Your task to perform on an android device: add a contact in the contacts app Image 0: 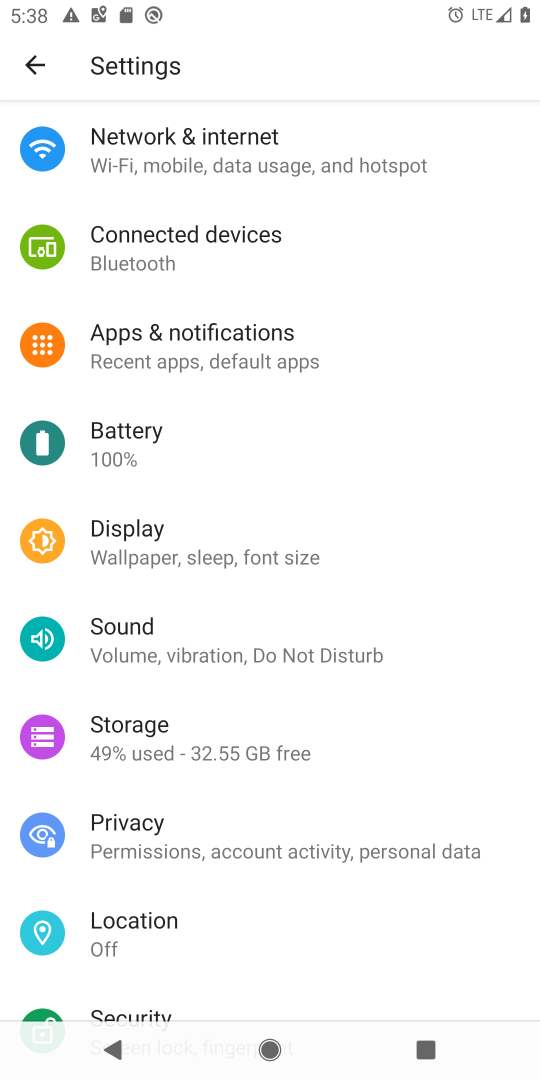
Step 0: press back button
Your task to perform on an android device: add a contact in the contacts app Image 1: 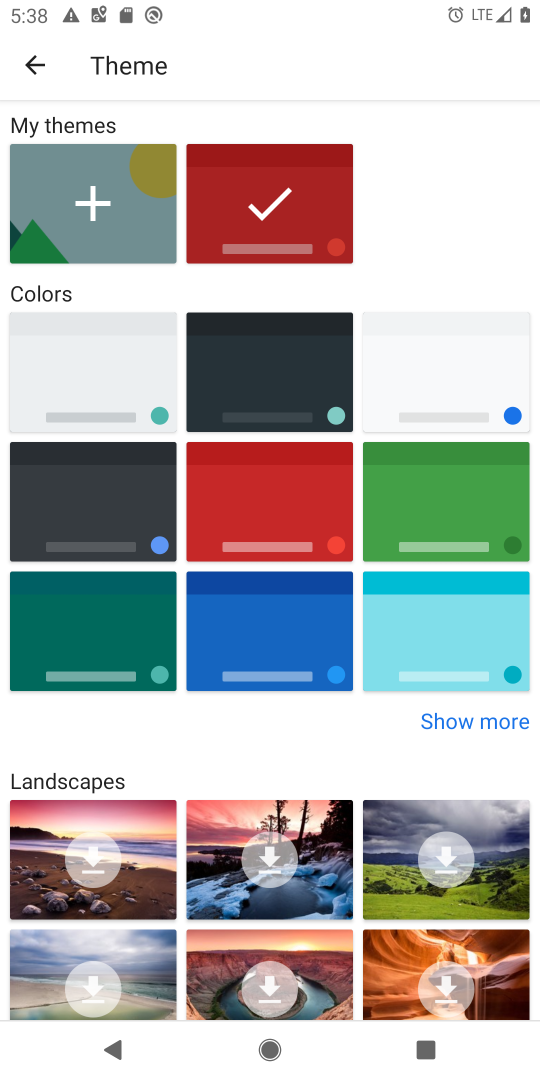
Step 1: press back button
Your task to perform on an android device: add a contact in the contacts app Image 2: 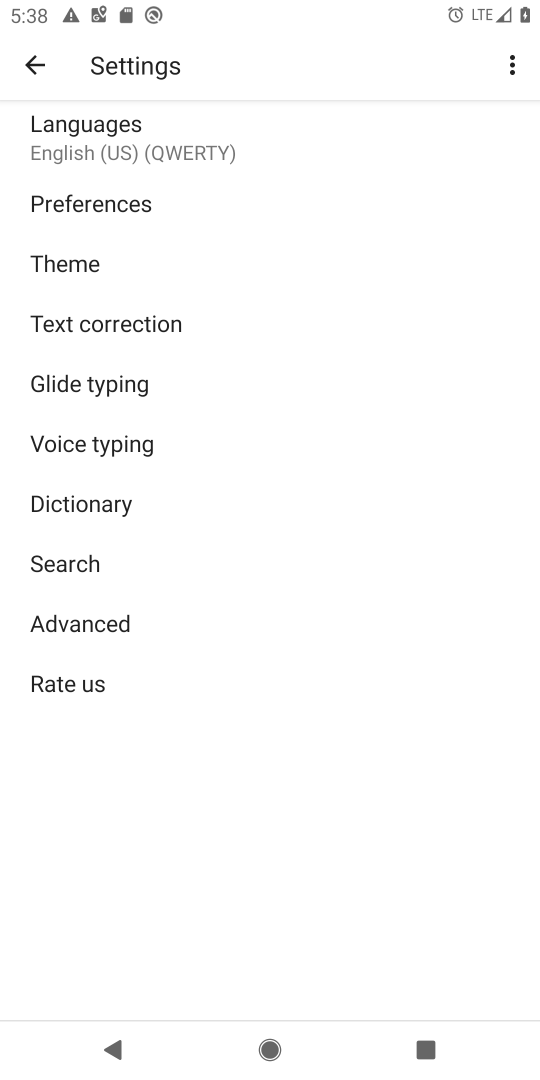
Step 2: press back button
Your task to perform on an android device: add a contact in the contacts app Image 3: 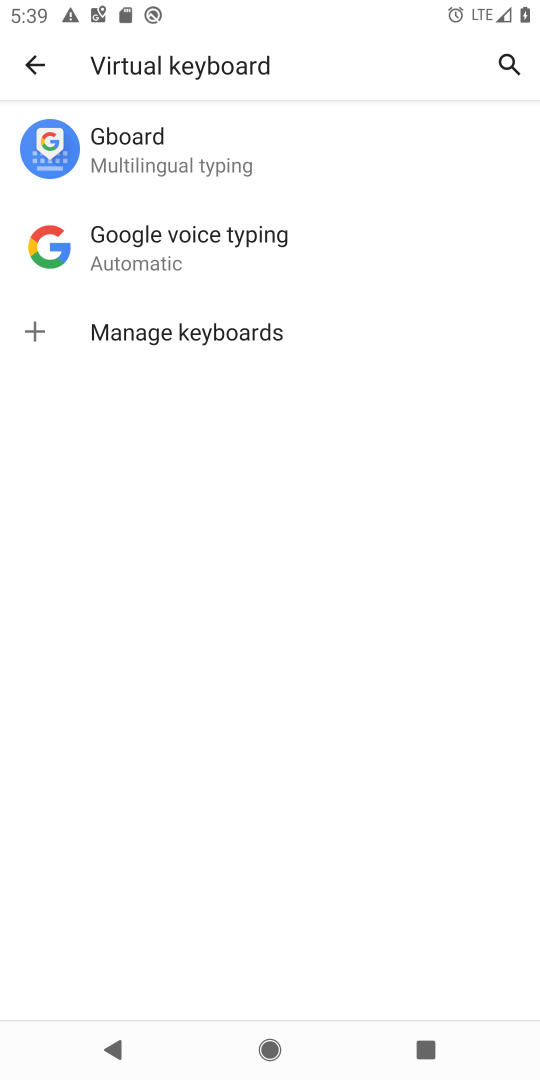
Step 3: press back button
Your task to perform on an android device: add a contact in the contacts app Image 4: 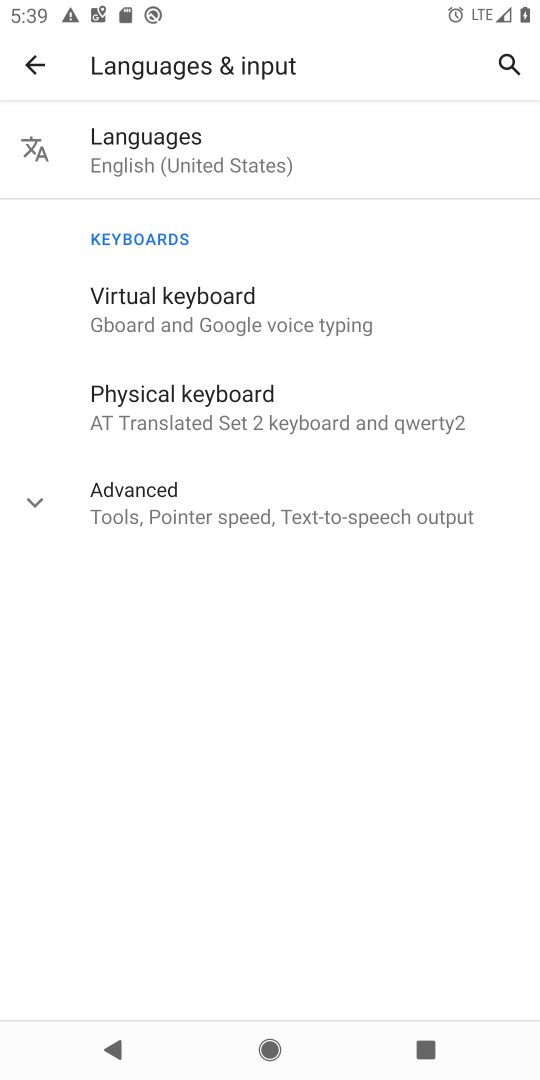
Step 4: press back button
Your task to perform on an android device: add a contact in the contacts app Image 5: 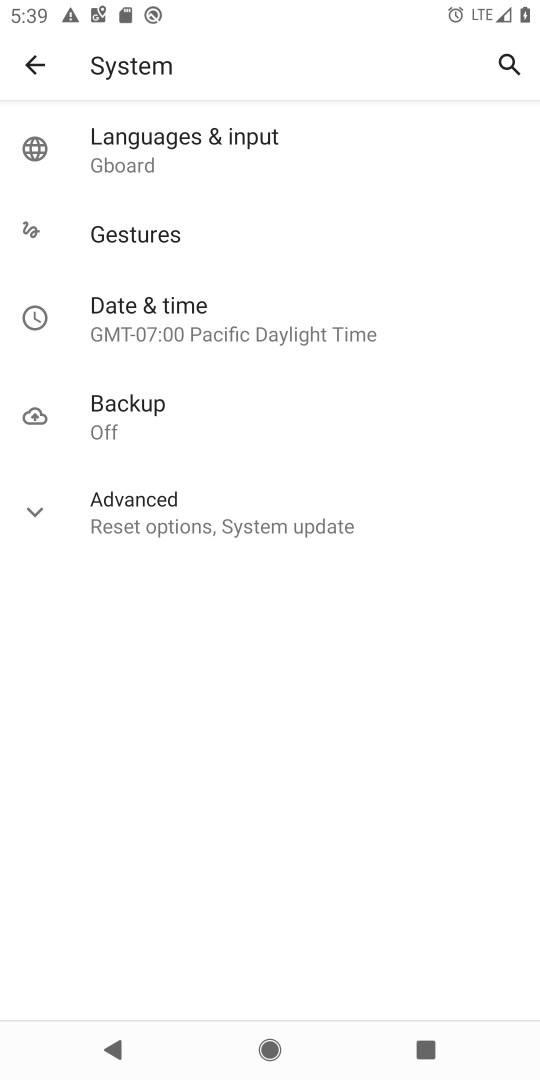
Step 5: press back button
Your task to perform on an android device: add a contact in the contacts app Image 6: 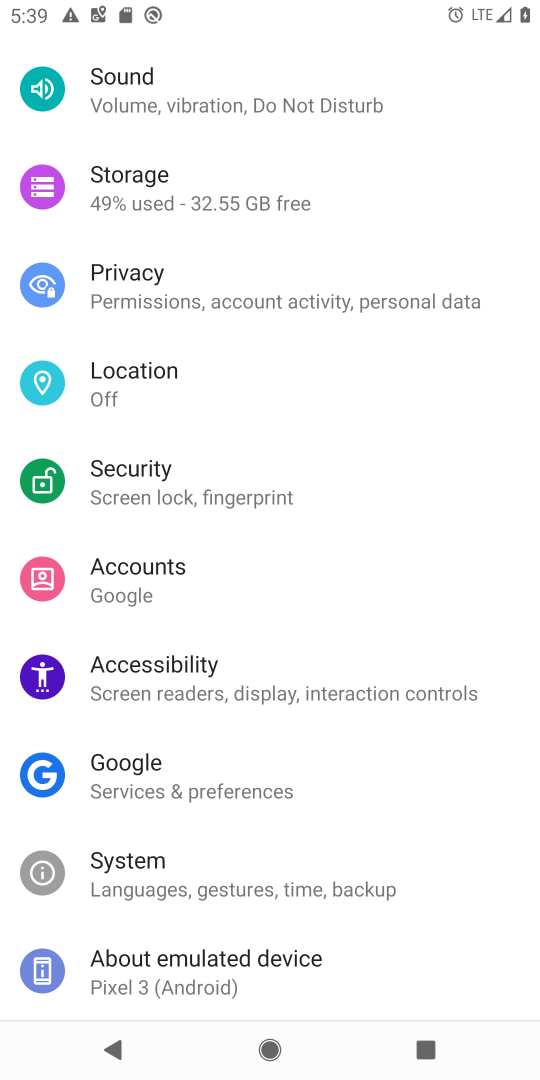
Step 6: press back button
Your task to perform on an android device: add a contact in the contacts app Image 7: 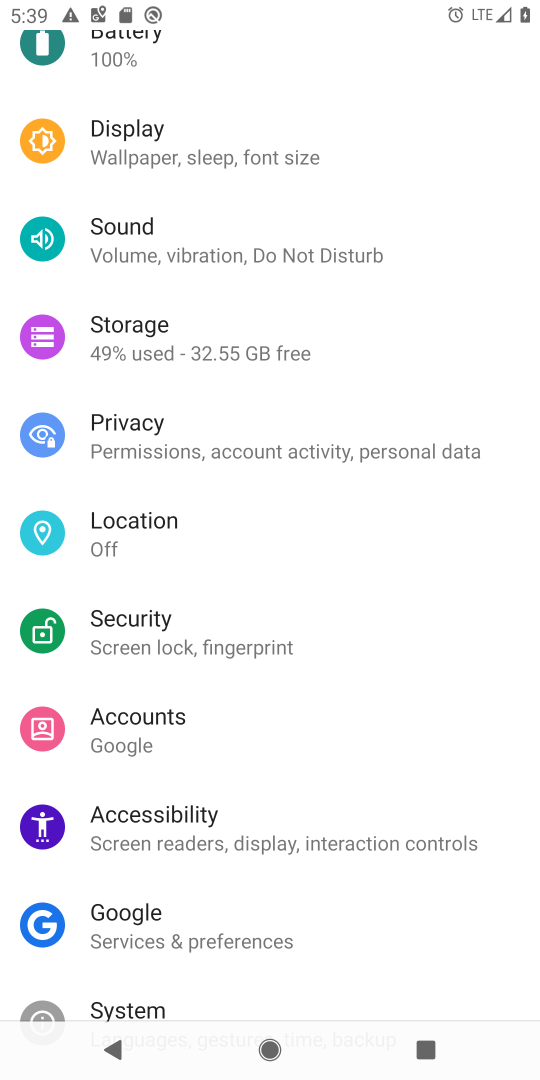
Step 7: press back button
Your task to perform on an android device: add a contact in the contacts app Image 8: 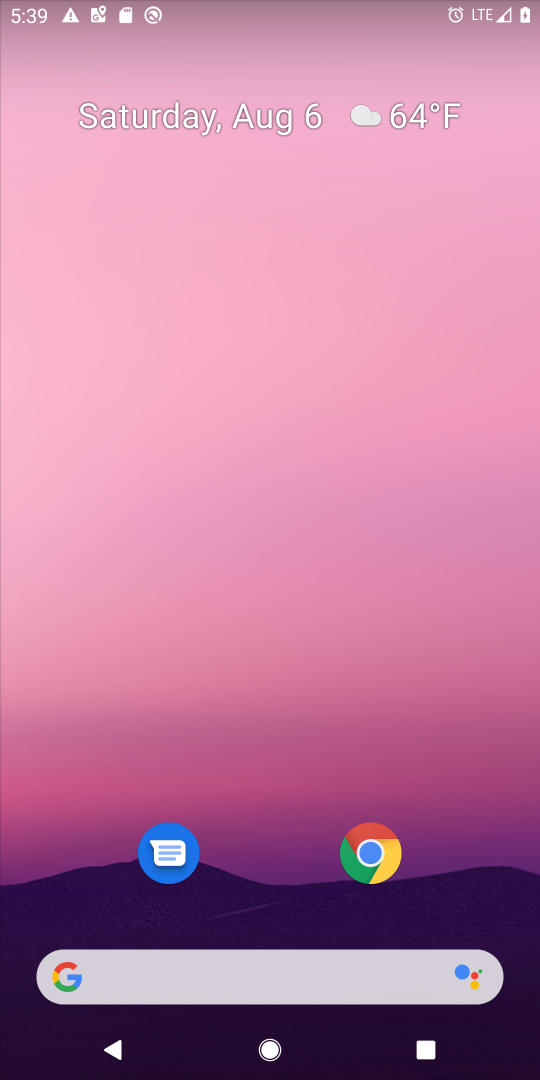
Step 8: drag from (254, 901) to (345, 68)
Your task to perform on an android device: add a contact in the contacts app Image 9: 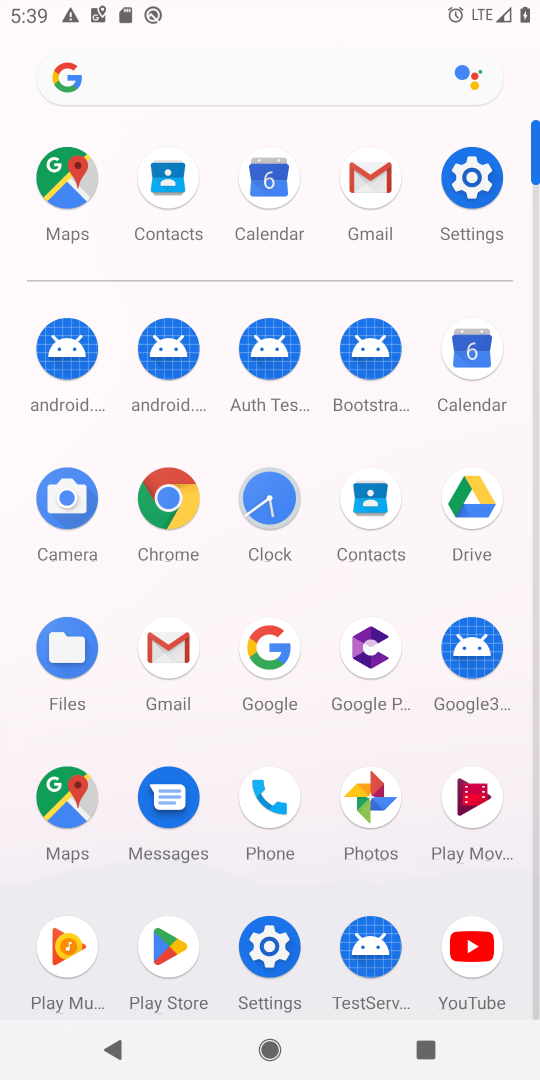
Step 9: click (371, 505)
Your task to perform on an android device: add a contact in the contacts app Image 10: 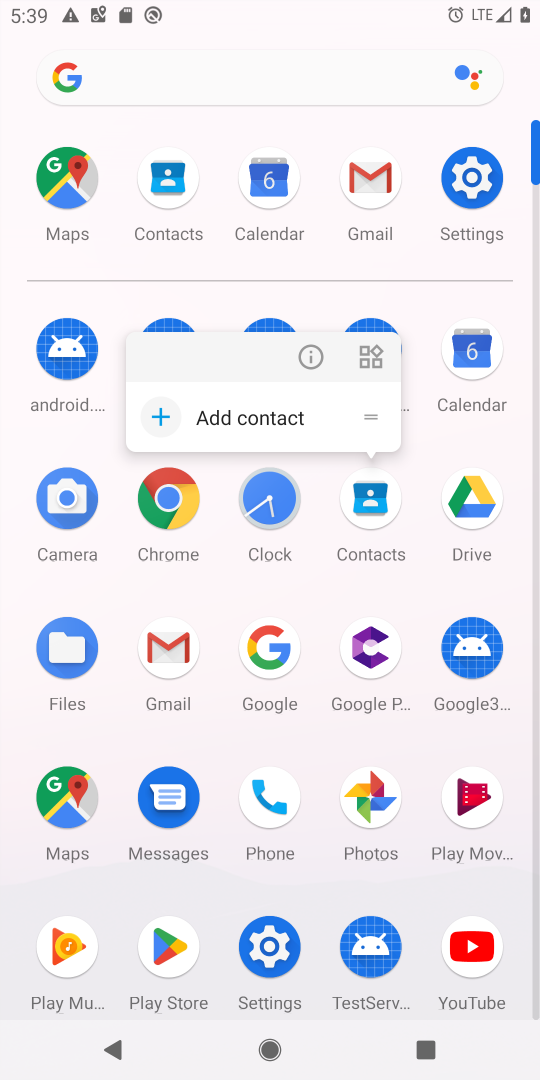
Step 10: click (367, 505)
Your task to perform on an android device: add a contact in the contacts app Image 11: 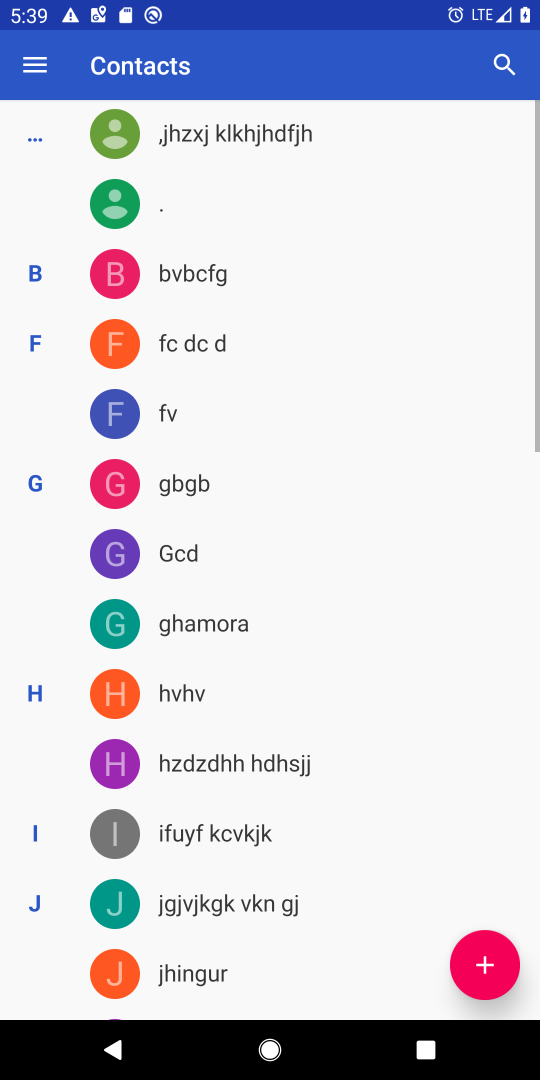
Step 11: click (482, 967)
Your task to perform on an android device: add a contact in the contacts app Image 12: 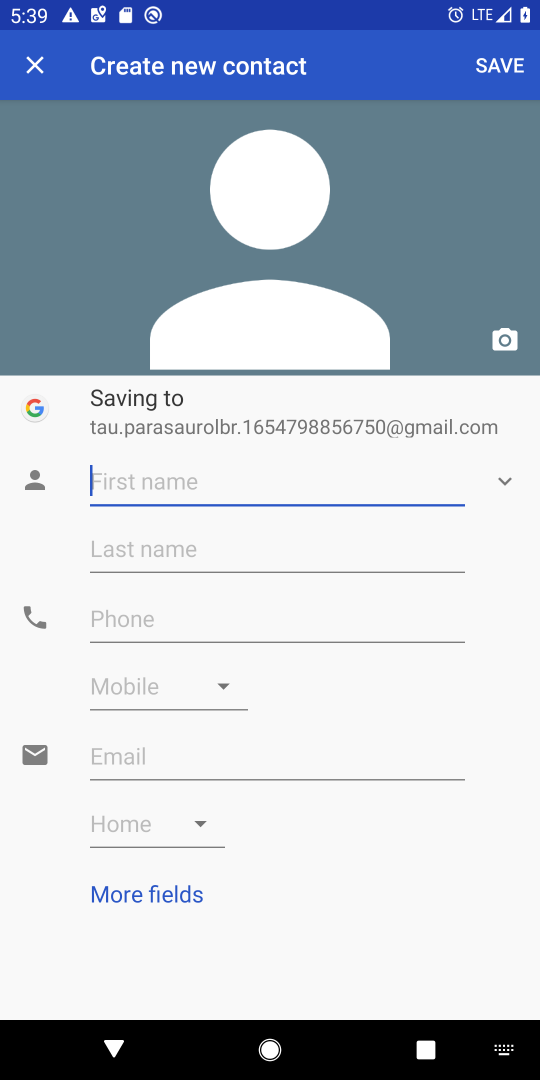
Step 12: click (211, 467)
Your task to perform on an android device: add a contact in the contacts app Image 13: 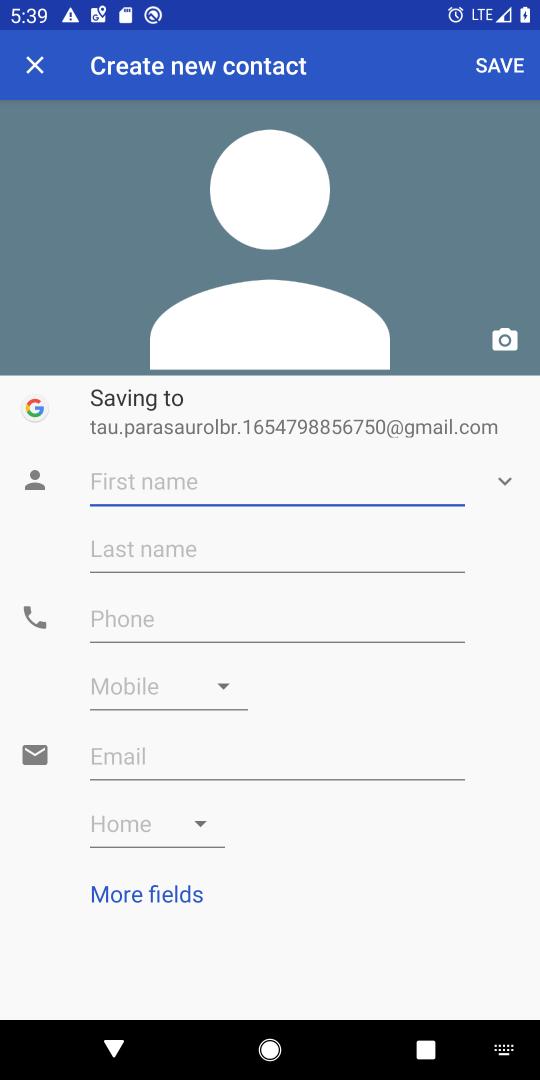
Step 13: type "bgnfgn"
Your task to perform on an android device: add a contact in the contacts app Image 14: 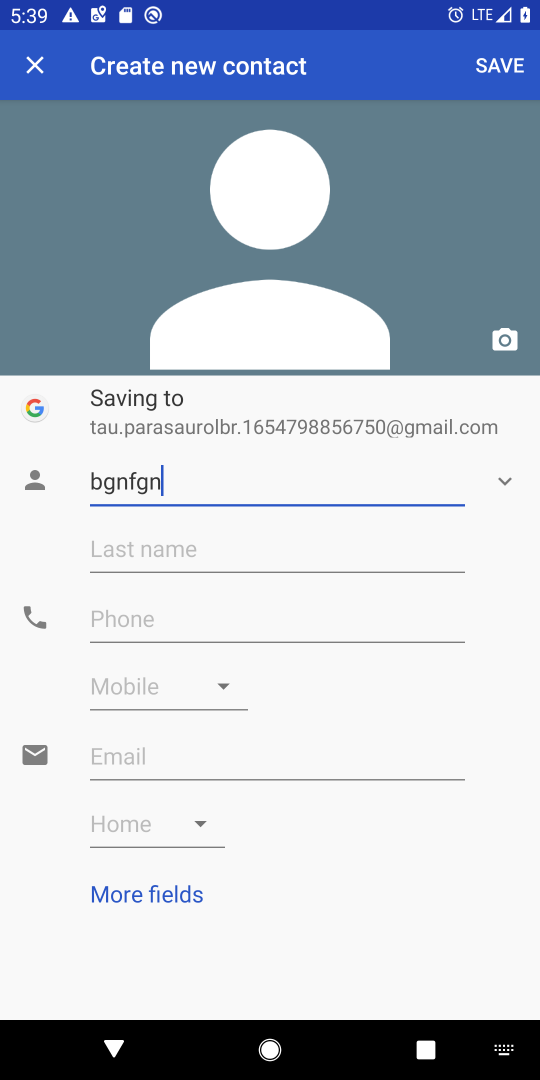
Step 14: click (125, 638)
Your task to perform on an android device: add a contact in the contacts app Image 15: 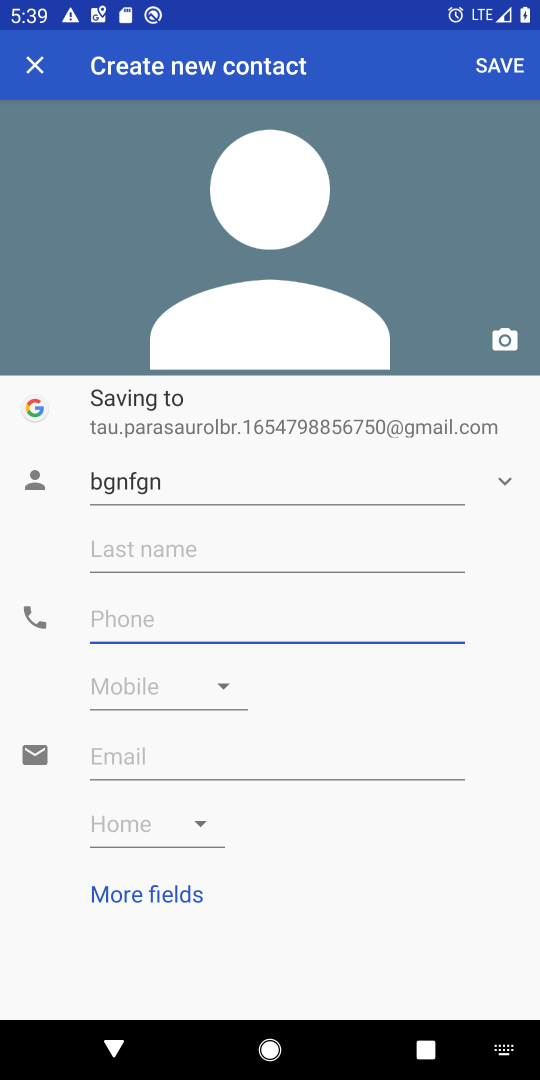
Step 15: type "78788"
Your task to perform on an android device: add a contact in the contacts app Image 16: 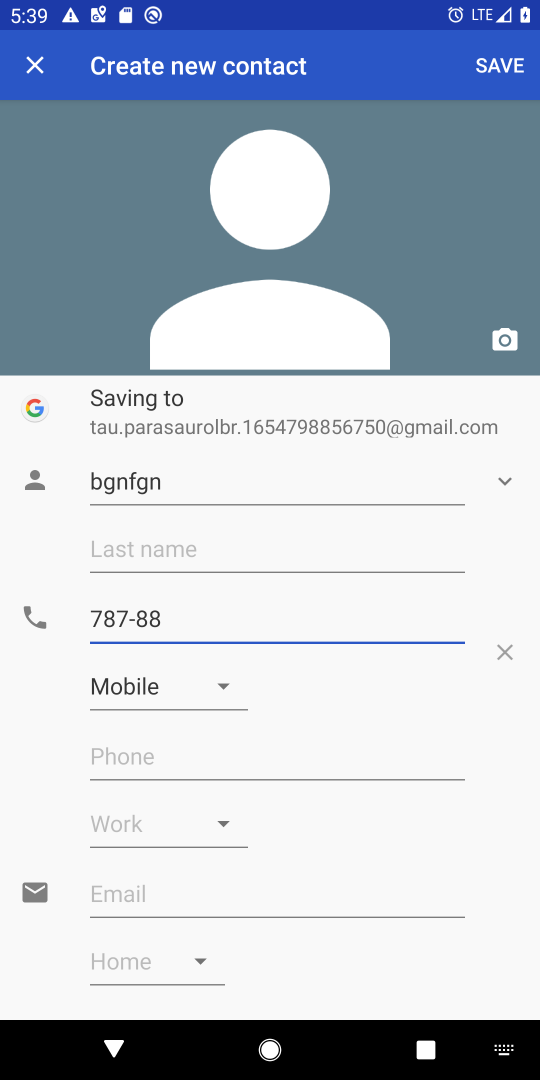
Step 16: click (495, 79)
Your task to perform on an android device: add a contact in the contacts app Image 17: 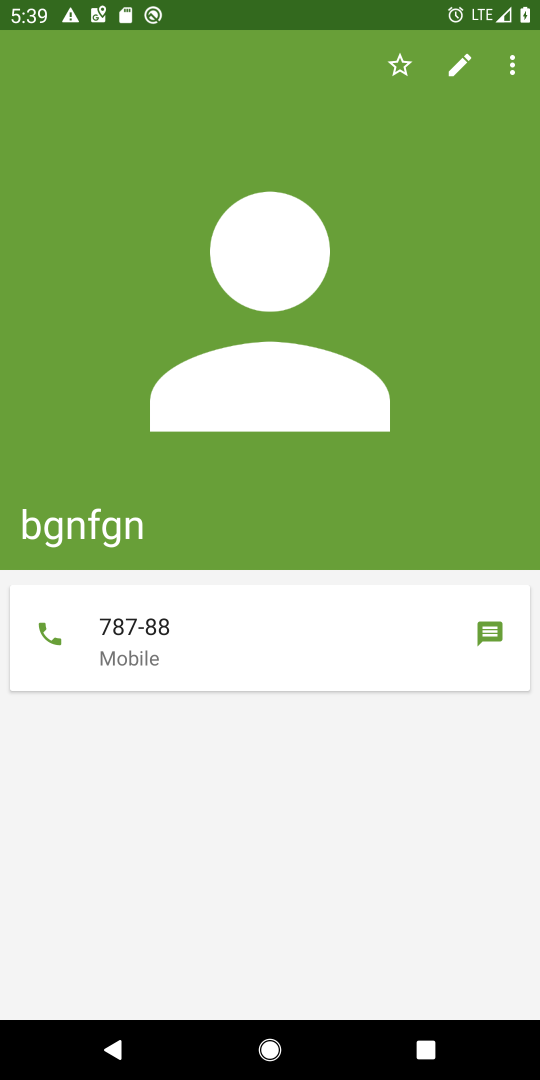
Step 17: task complete